Your task to perform on an android device: See recent photos Image 0: 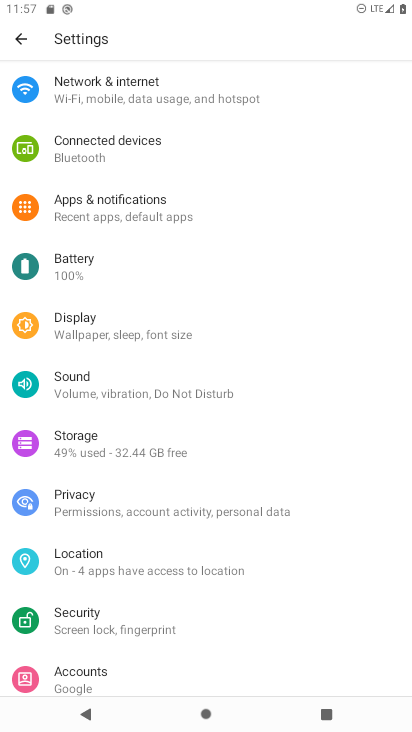
Step 0: press home button
Your task to perform on an android device: See recent photos Image 1: 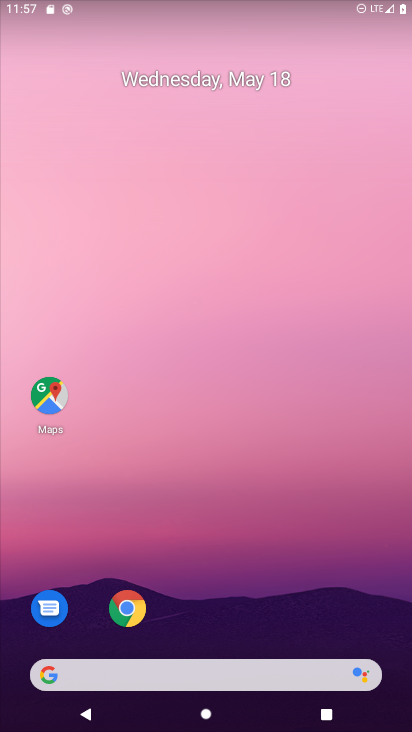
Step 1: drag from (156, 602) to (140, 208)
Your task to perform on an android device: See recent photos Image 2: 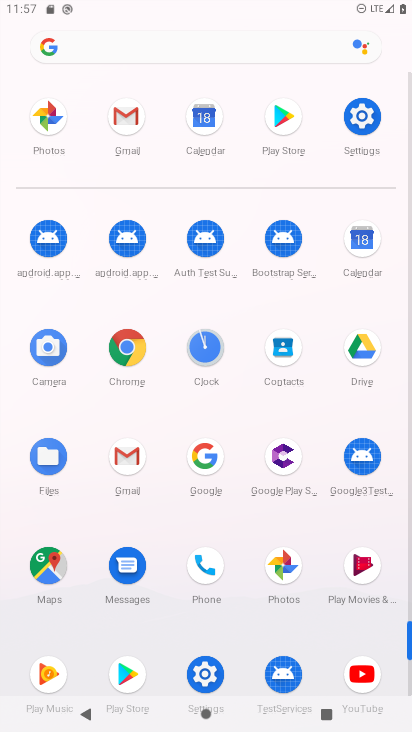
Step 2: click (277, 568)
Your task to perform on an android device: See recent photos Image 3: 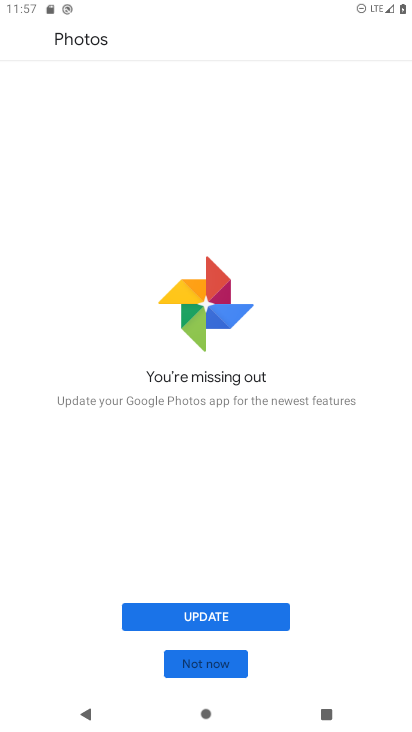
Step 3: click (200, 672)
Your task to perform on an android device: See recent photos Image 4: 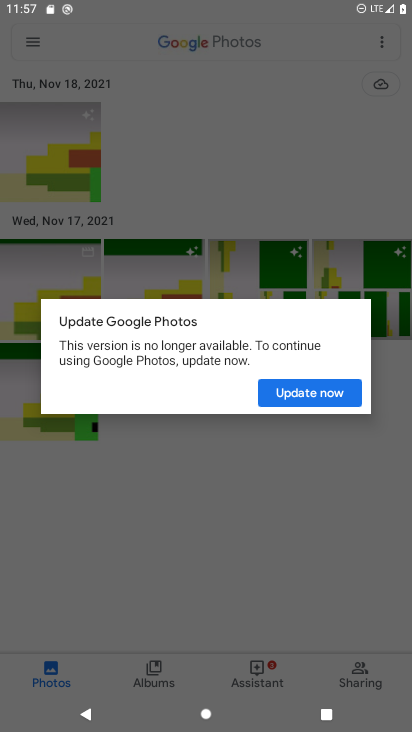
Step 4: click (298, 401)
Your task to perform on an android device: See recent photos Image 5: 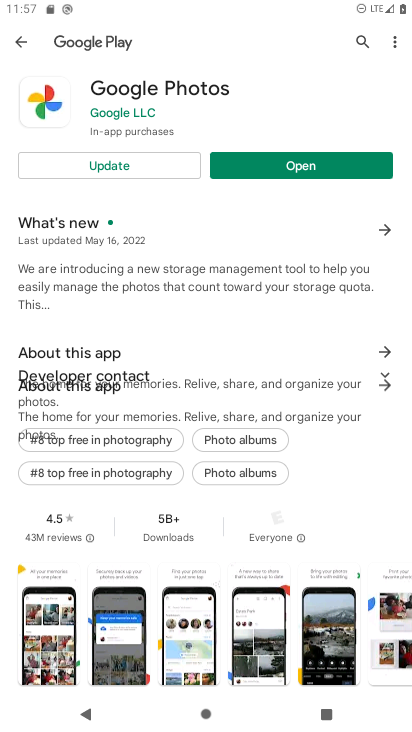
Step 5: task complete